Your task to perform on an android device: Open Google Maps Image 0: 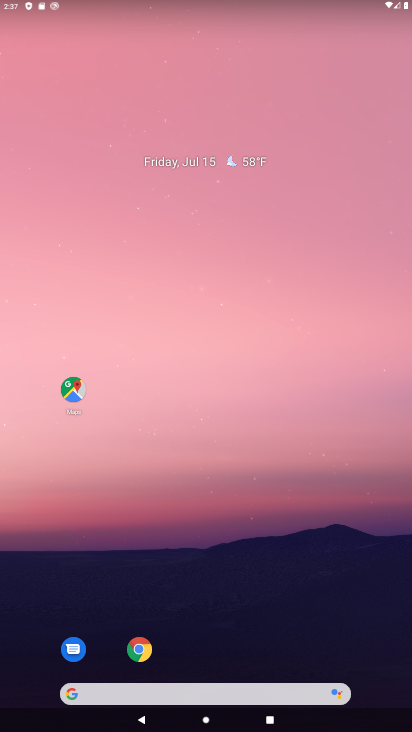
Step 0: drag from (177, 647) to (175, 124)
Your task to perform on an android device: Open Google Maps Image 1: 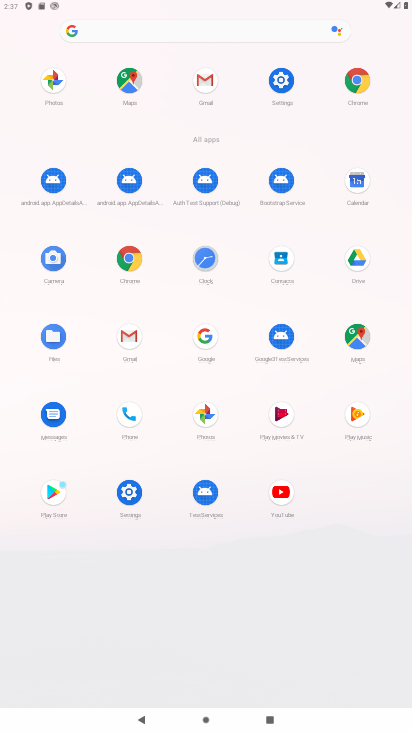
Step 1: click (358, 336)
Your task to perform on an android device: Open Google Maps Image 2: 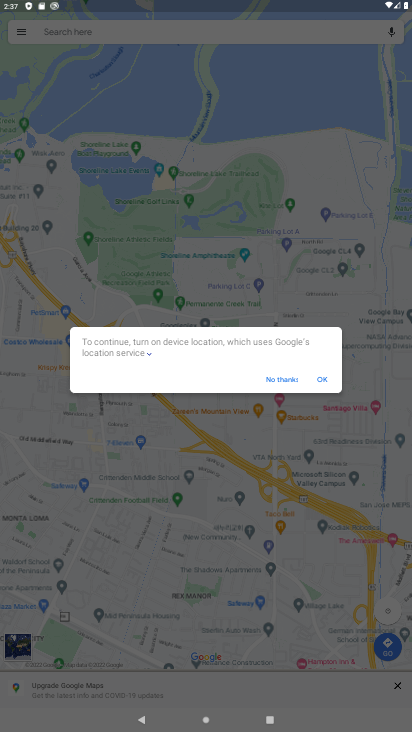
Step 2: click (325, 376)
Your task to perform on an android device: Open Google Maps Image 3: 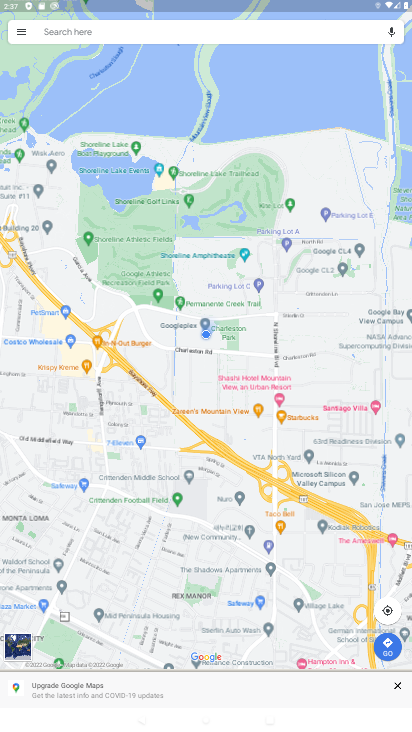
Step 3: task complete